Your task to perform on an android device: turn pop-ups on in chrome Image 0: 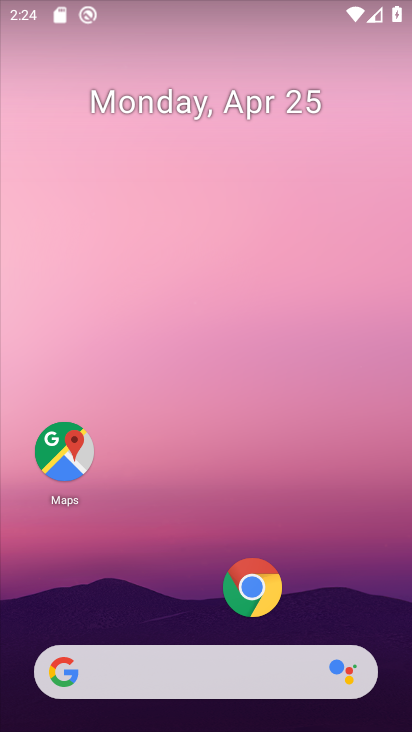
Step 0: drag from (204, 619) to (202, 71)
Your task to perform on an android device: turn pop-ups on in chrome Image 1: 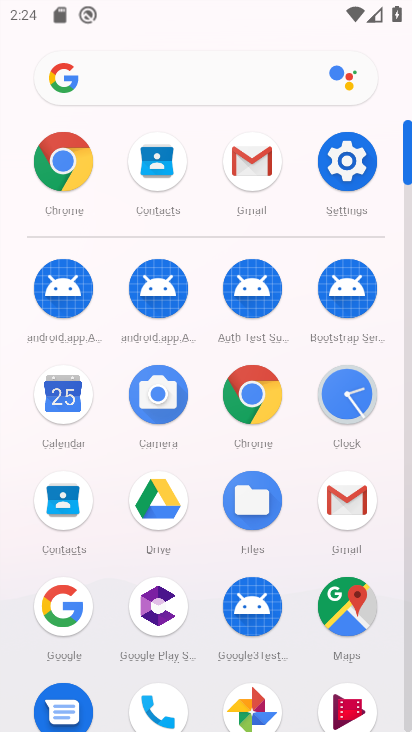
Step 1: click (254, 388)
Your task to perform on an android device: turn pop-ups on in chrome Image 2: 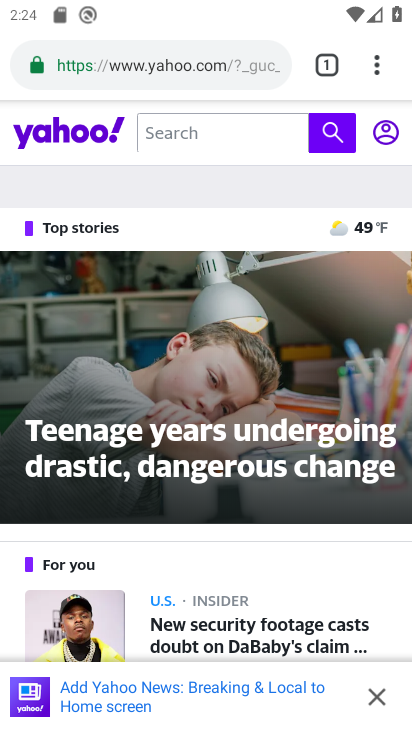
Step 2: click (377, 60)
Your task to perform on an android device: turn pop-ups on in chrome Image 3: 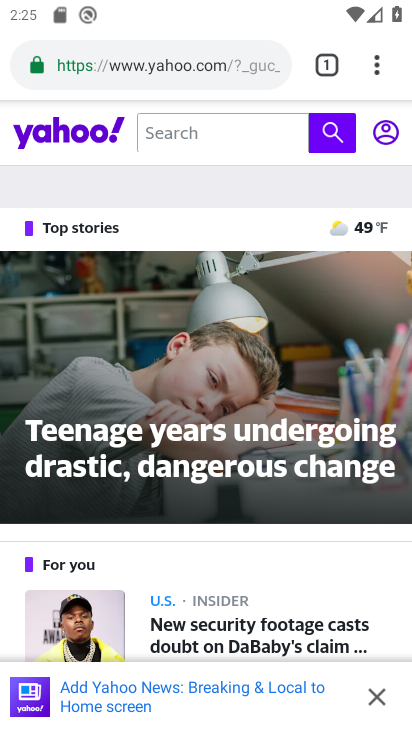
Step 3: click (376, 64)
Your task to perform on an android device: turn pop-ups on in chrome Image 4: 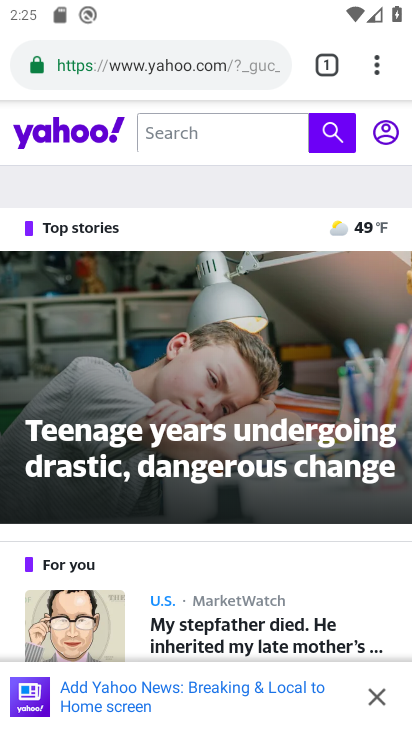
Step 4: click (376, 57)
Your task to perform on an android device: turn pop-ups on in chrome Image 5: 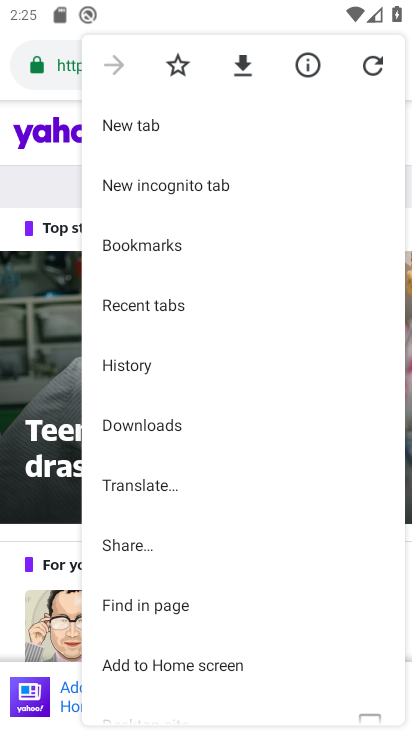
Step 5: drag from (218, 640) to (210, 262)
Your task to perform on an android device: turn pop-ups on in chrome Image 6: 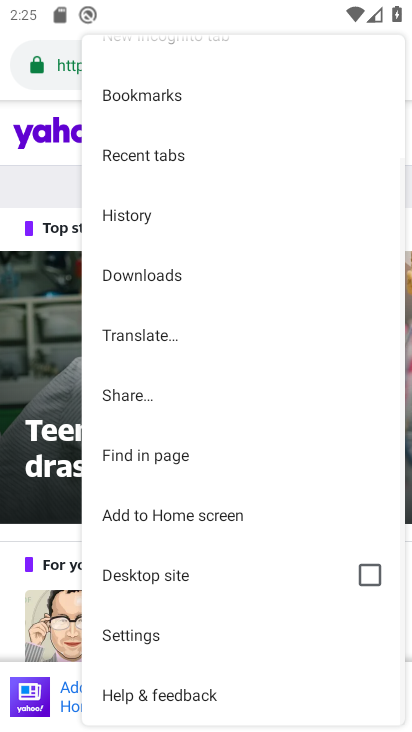
Step 6: click (163, 631)
Your task to perform on an android device: turn pop-ups on in chrome Image 7: 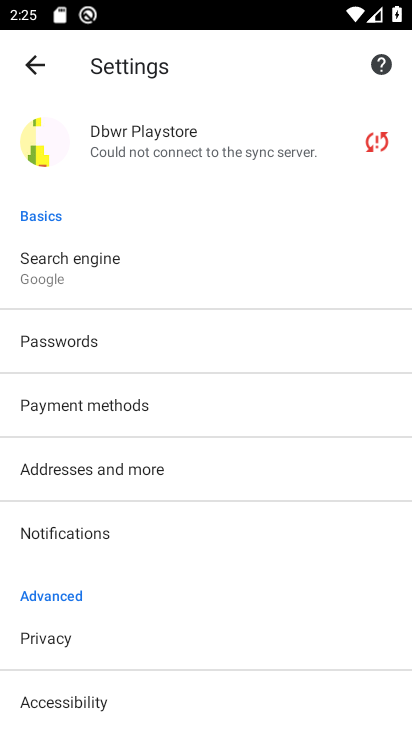
Step 7: drag from (177, 665) to (188, 214)
Your task to perform on an android device: turn pop-ups on in chrome Image 8: 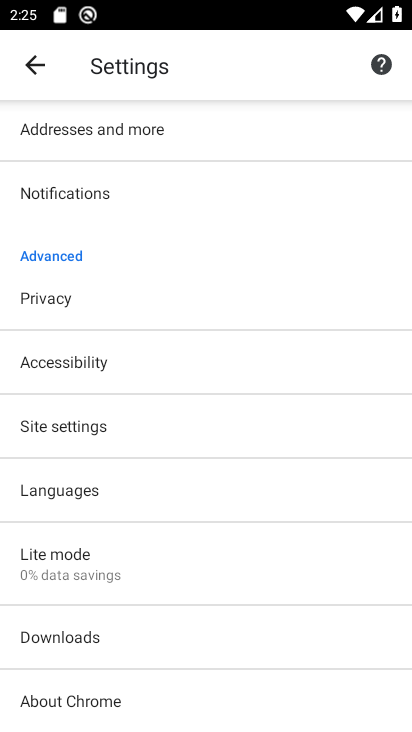
Step 8: click (115, 426)
Your task to perform on an android device: turn pop-ups on in chrome Image 9: 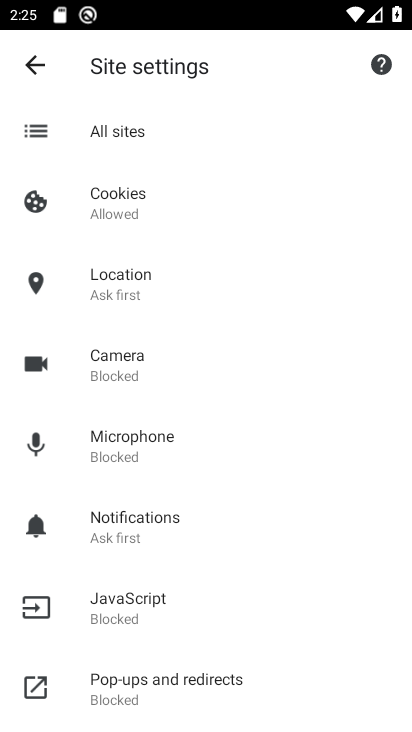
Step 9: click (186, 696)
Your task to perform on an android device: turn pop-ups on in chrome Image 10: 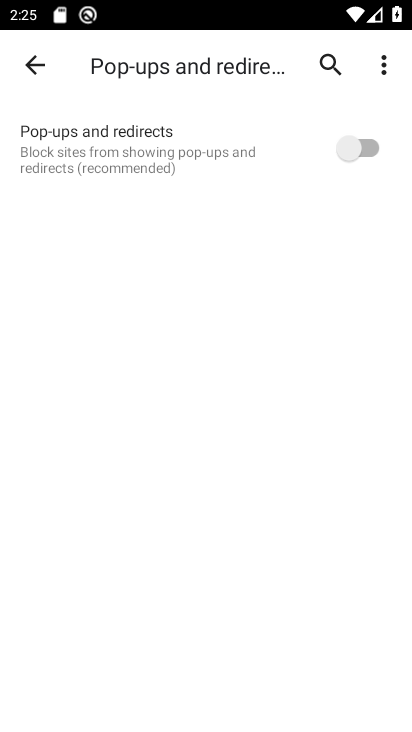
Step 10: click (366, 148)
Your task to perform on an android device: turn pop-ups on in chrome Image 11: 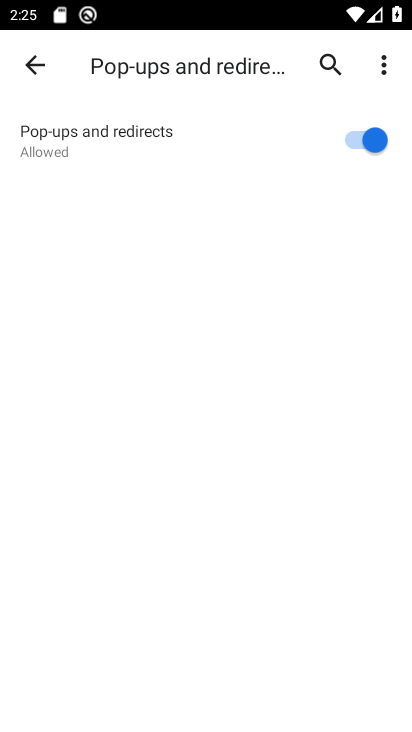
Step 11: task complete